Your task to perform on an android device: Search for pizza restaurants on Maps Image 0: 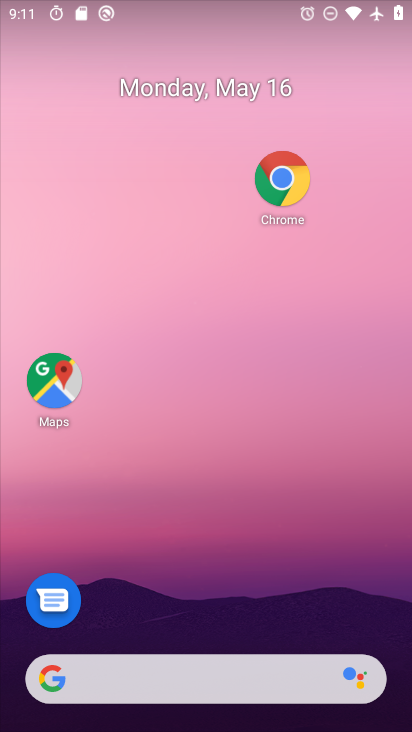
Step 0: click (50, 386)
Your task to perform on an android device: Search for pizza restaurants on Maps Image 1: 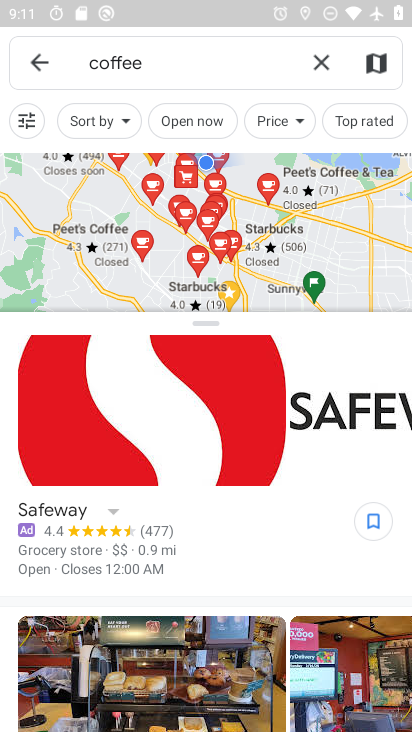
Step 1: click (319, 66)
Your task to perform on an android device: Search for pizza restaurants on Maps Image 2: 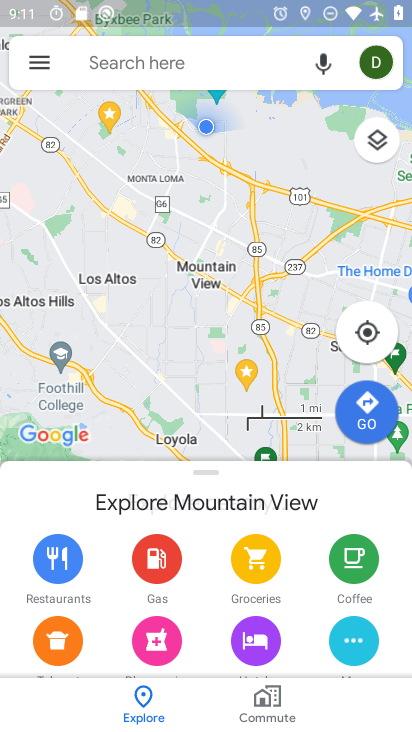
Step 2: click (155, 65)
Your task to perform on an android device: Search for pizza restaurants on Maps Image 3: 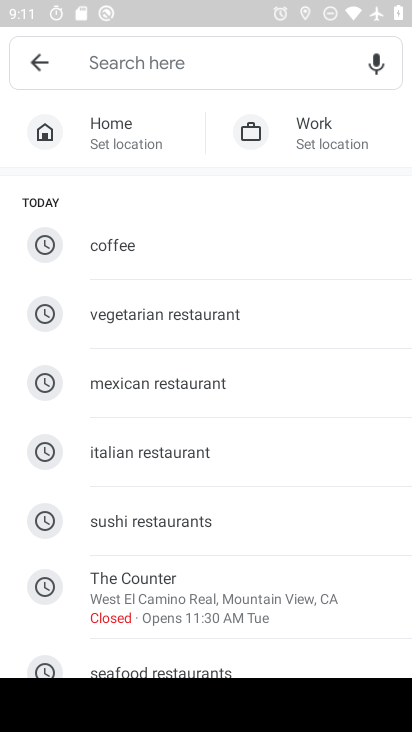
Step 3: drag from (267, 521) to (326, 286)
Your task to perform on an android device: Search for pizza restaurants on Maps Image 4: 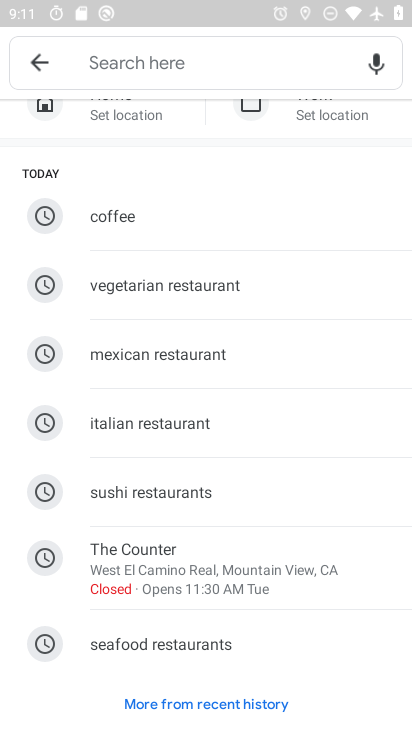
Step 4: drag from (317, 257) to (304, 502)
Your task to perform on an android device: Search for pizza restaurants on Maps Image 5: 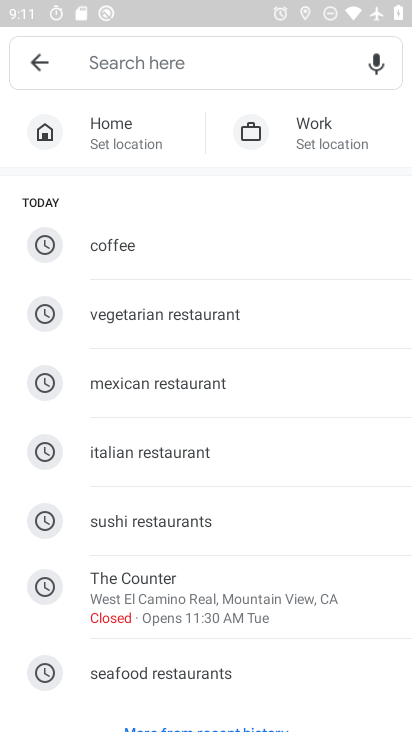
Step 5: click (149, 52)
Your task to perform on an android device: Search for pizza restaurants on Maps Image 6: 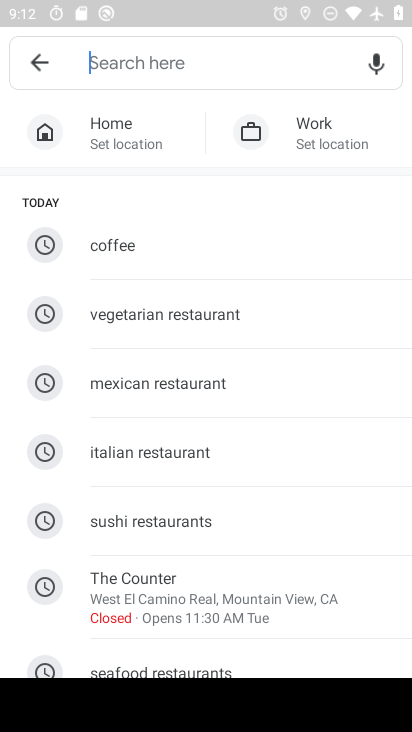
Step 6: type "pizza restaurant"
Your task to perform on an android device: Search for pizza restaurants on Maps Image 7: 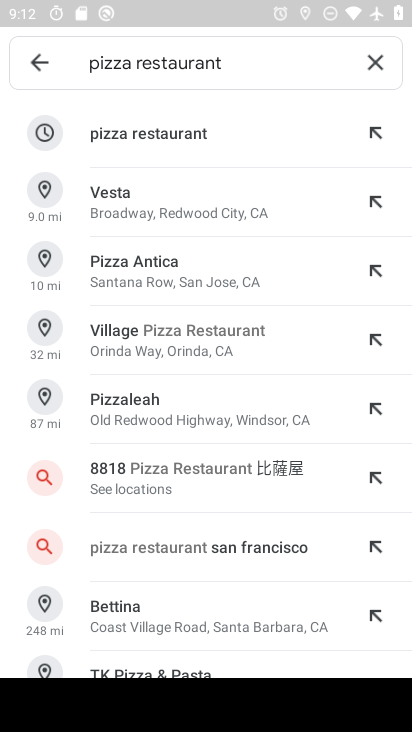
Step 7: click (183, 139)
Your task to perform on an android device: Search for pizza restaurants on Maps Image 8: 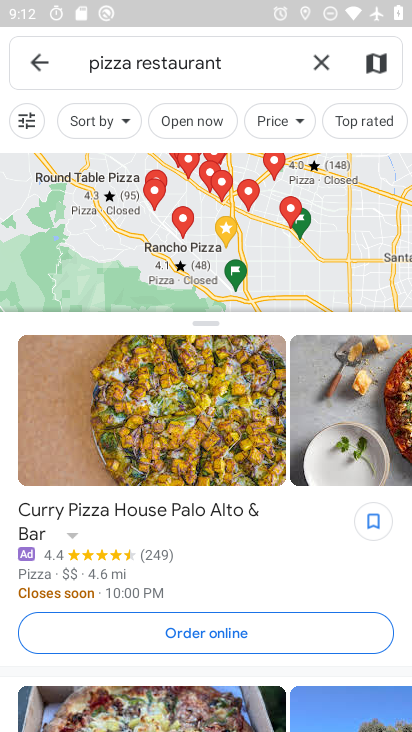
Step 8: task complete